Your task to perform on an android device: change the clock display to analog Image 0: 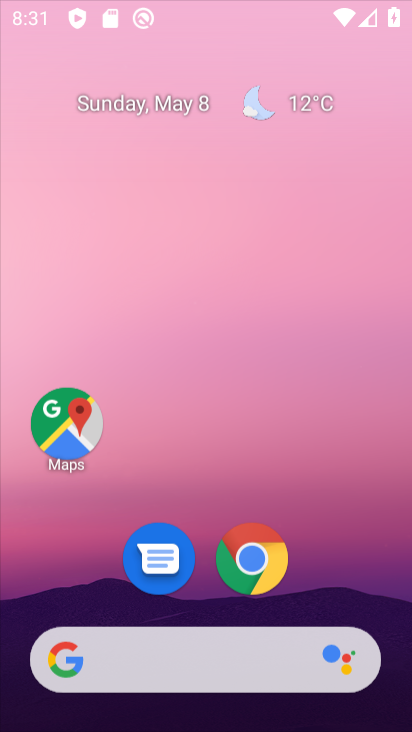
Step 0: drag from (206, 510) to (215, 10)
Your task to perform on an android device: change the clock display to analog Image 1: 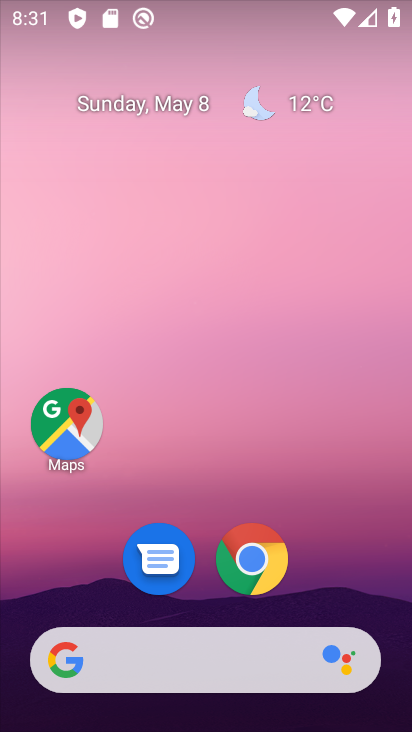
Step 1: drag from (221, 606) to (281, 21)
Your task to perform on an android device: change the clock display to analog Image 2: 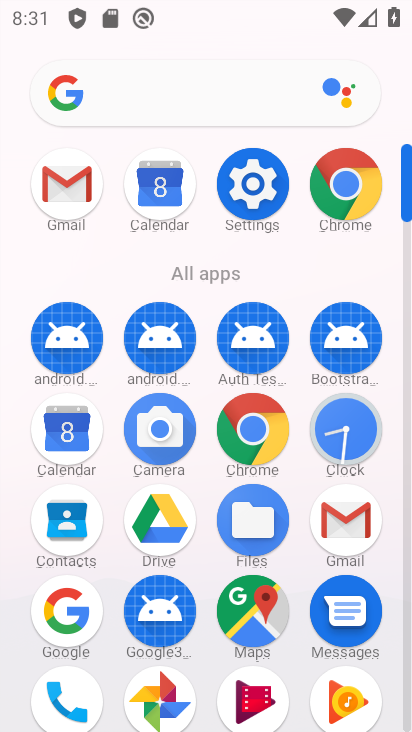
Step 2: click (337, 431)
Your task to perform on an android device: change the clock display to analog Image 3: 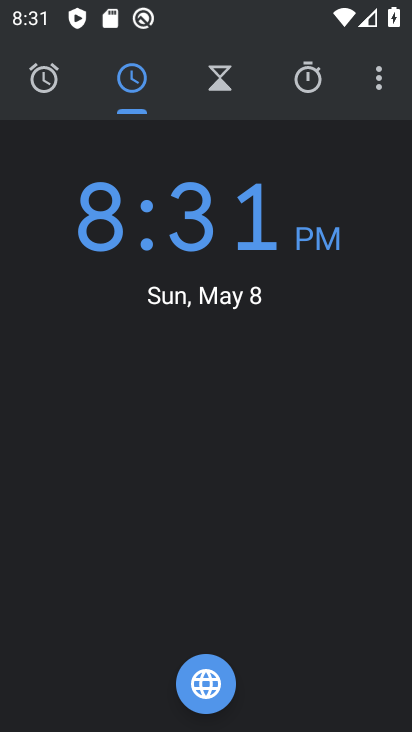
Step 3: click (385, 84)
Your task to perform on an android device: change the clock display to analog Image 4: 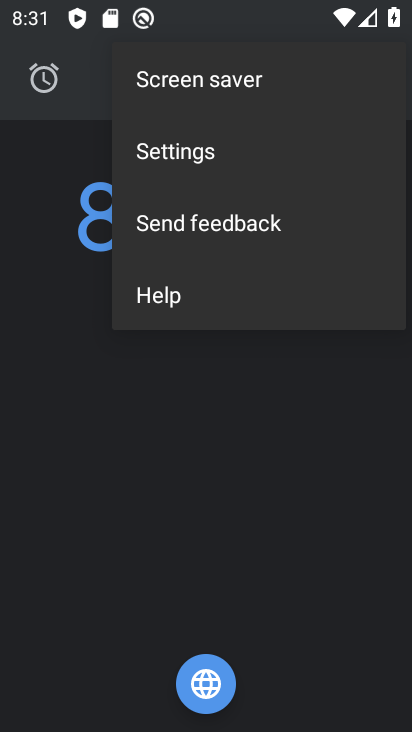
Step 4: click (193, 147)
Your task to perform on an android device: change the clock display to analog Image 5: 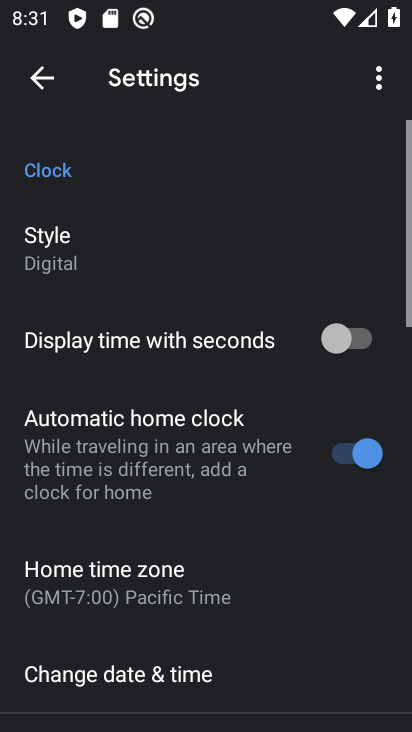
Step 5: click (88, 230)
Your task to perform on an android device: change the clock display to analog Image 6: 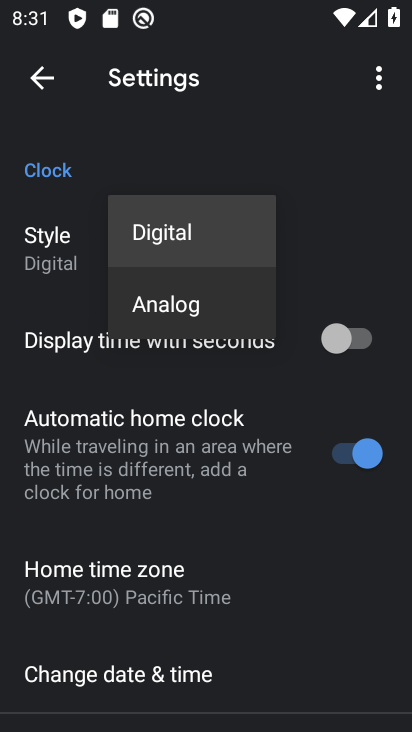
Step 6: click (144, 292)
Your task to perform on an android device: change the clock display to analog Image 7: 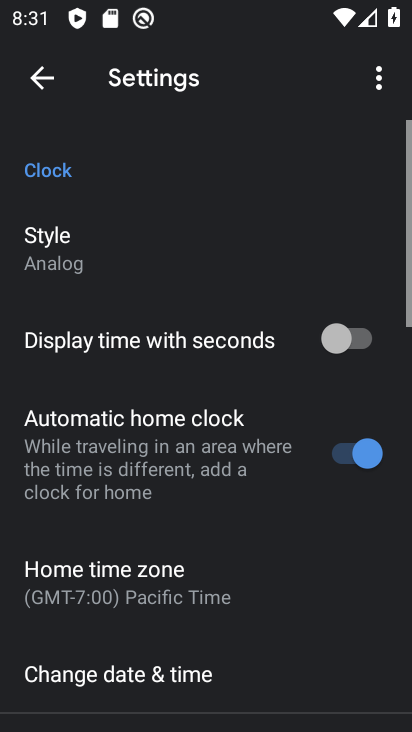
Step 7: task complete